Your task to perform on an android device: change notification settings in the gmail app Image 0: 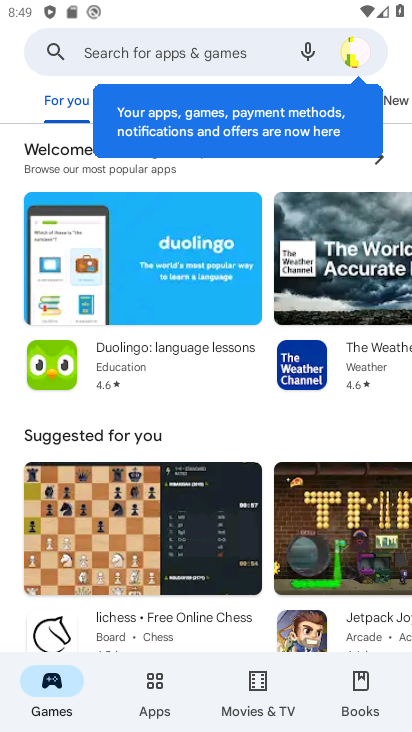
Step 0: press home button
Your task to perform on an android device: change notification settings in the gmail app Image 1: 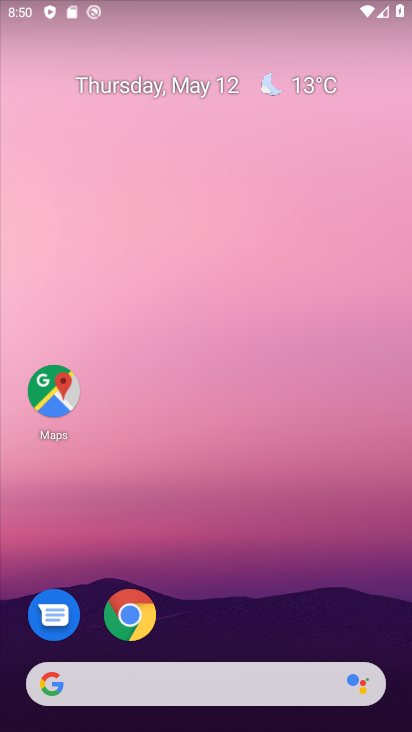
Step 1: drag from (226, 653) to (212, 5)
Your task to perform on an android device: change notification settings in the gmail app Image 2: 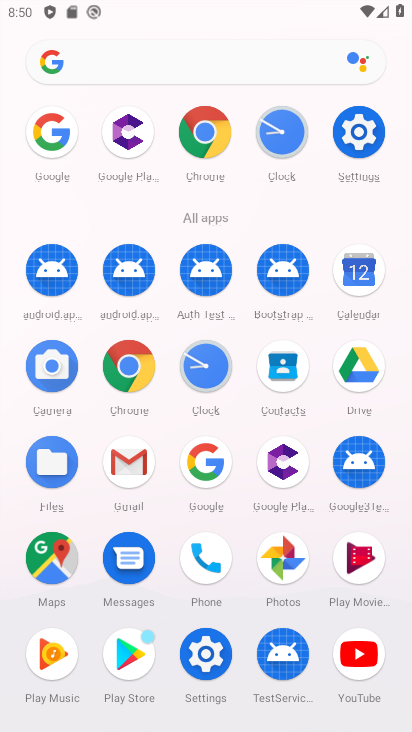
Step 2: click (114, 466)
Your task to perform on an android device: change notification settings in the gmail app Image 3: 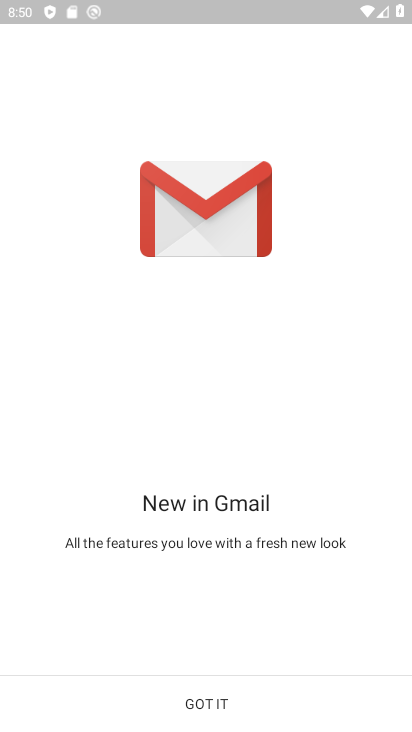
Step 3: click (182, 672)
Your task to perform on an android device: change notification settings in the gmail app Image 4: 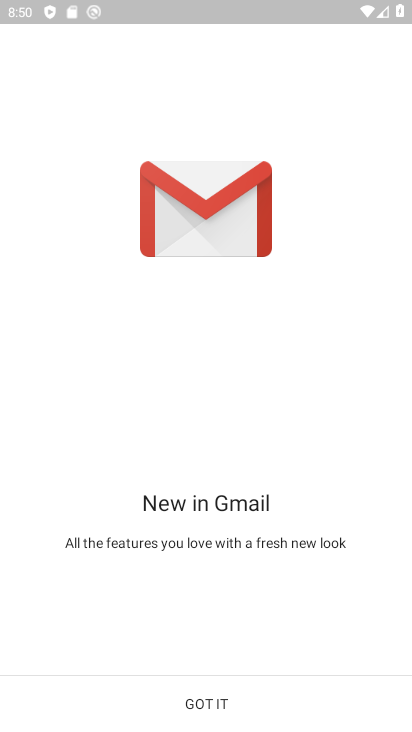
Step 4: click (216, 697)
Your task to perform on an android device: change notification settings in the gmail app Image 5: 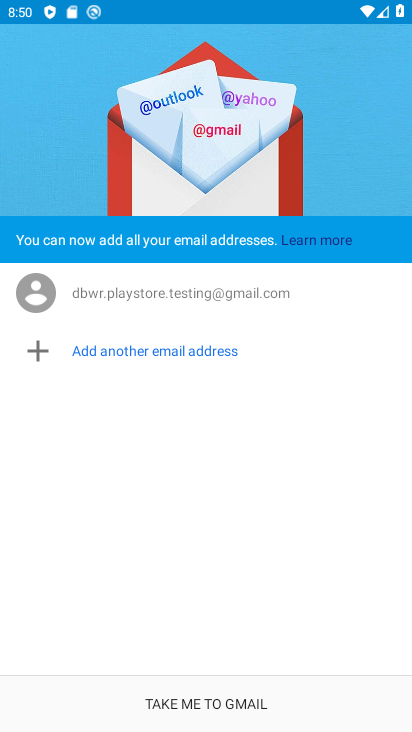
Step 5: click (216, 694)
Your task to perform on an android device: change notification settings in the gmail app Image 6: 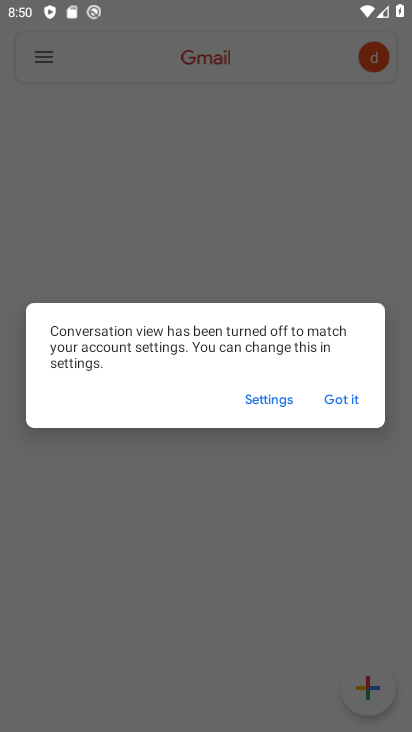
Step 6: click (325, 399)
Your task to perform on an android device: change notification settings in the gmail app Image 7: 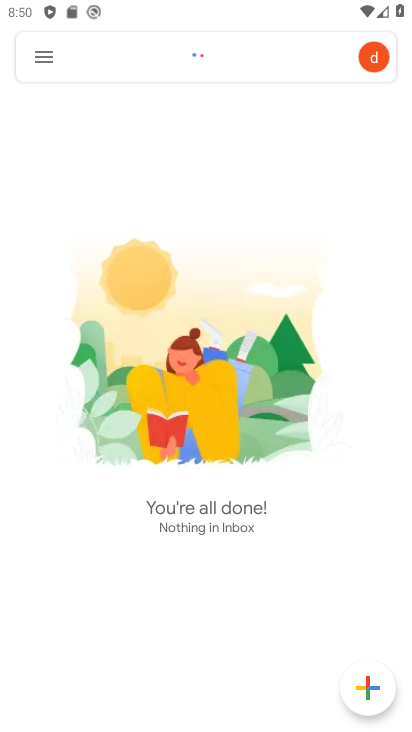
Step 7: click (33, 37)
Your task to perform on an android device: change notification settings in the gmail app Image 8: 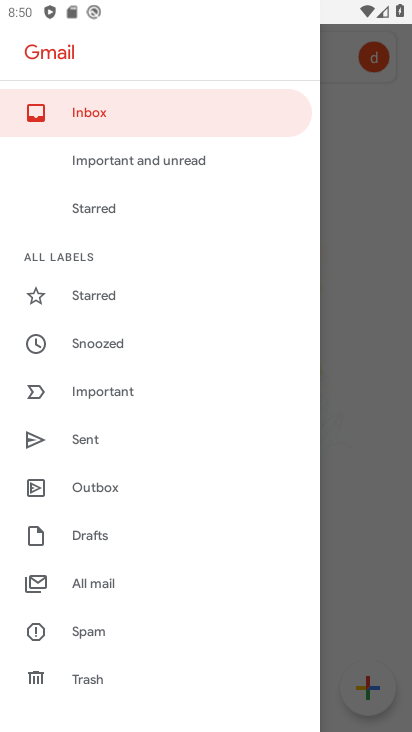
Step 8: drag from (147, 630) to (190, 94)
Your task to perform on an android device: change notification settings in the gmail app Image 9: 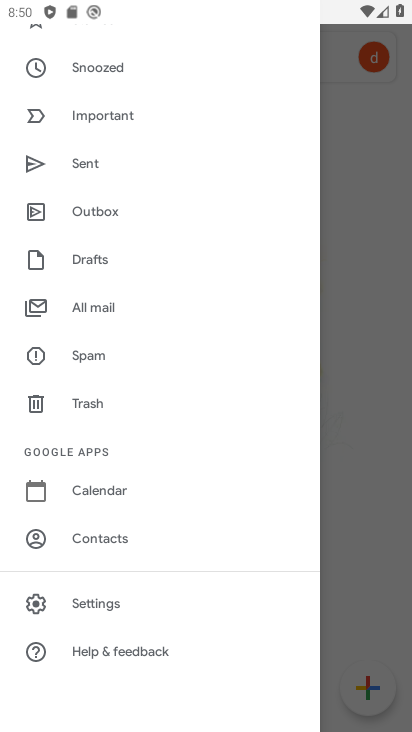
Step 9: click (96, 586)
Your task to perform on an android device: change notification settings in the gmail app Image 10: 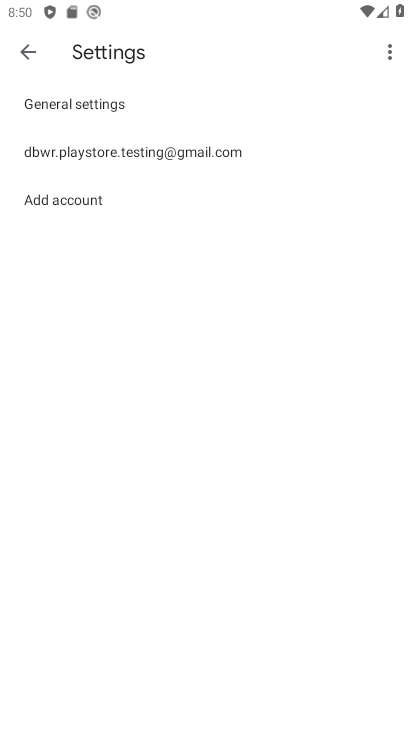
Step 10: drag from (124, 148) to (138, 409)
Your task to perform on an android device: change notification settings in the gmail app Image 11: 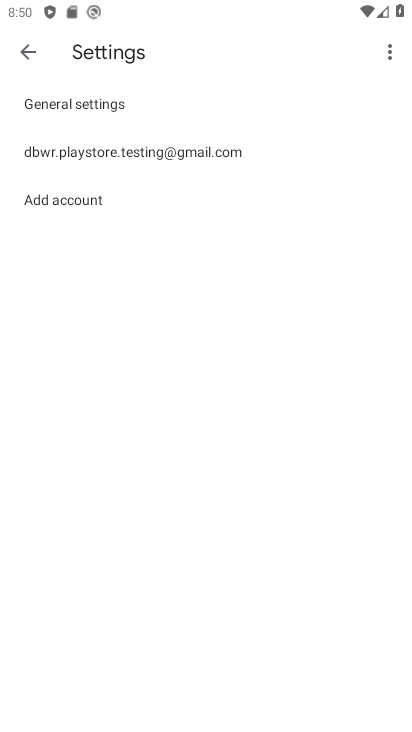
Step 11: click (97, 101)
Your task to perform on an android device: change notification settings in the gmail app Image 12: 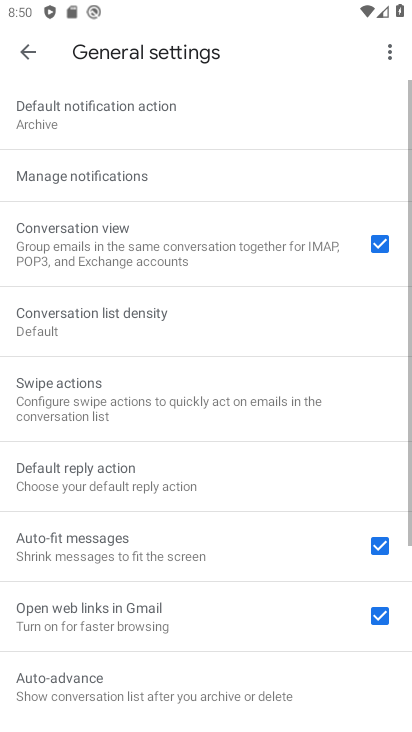
Step 12: click (91, 179)
Your task to perform on an android device: change notification settings in the gmail app Image 13: 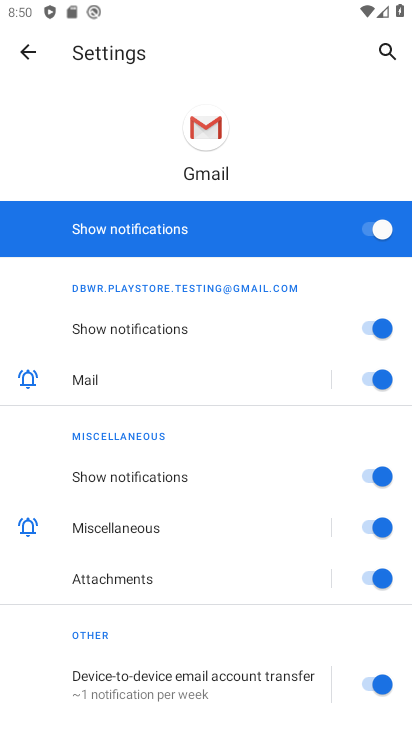
Step 13: click (372, 236)
Your task to perform on an android device: change notification settings in the gmail app Image 14: 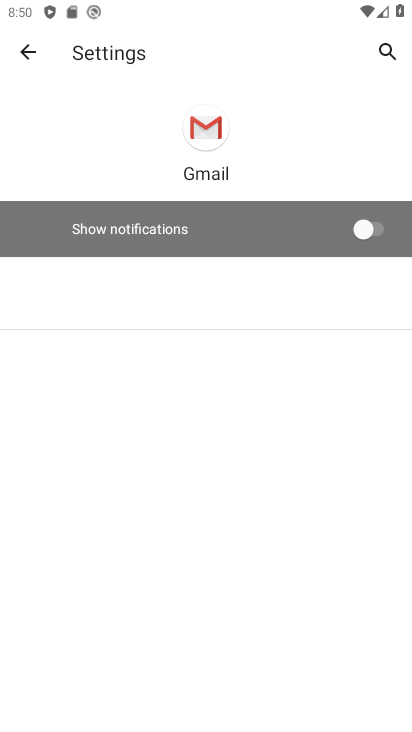
Step 14: task complete